Your task to perform on an android device: Open Amazon Image 0: 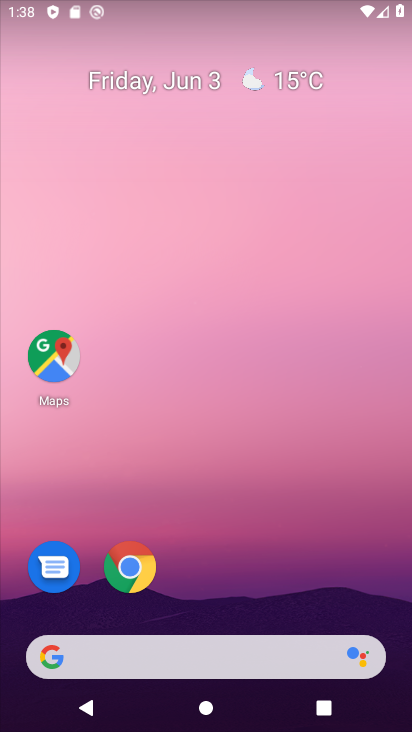
Step 0: click (117, 572)
Your task to perform on an android device: Open Amazon Image 1: 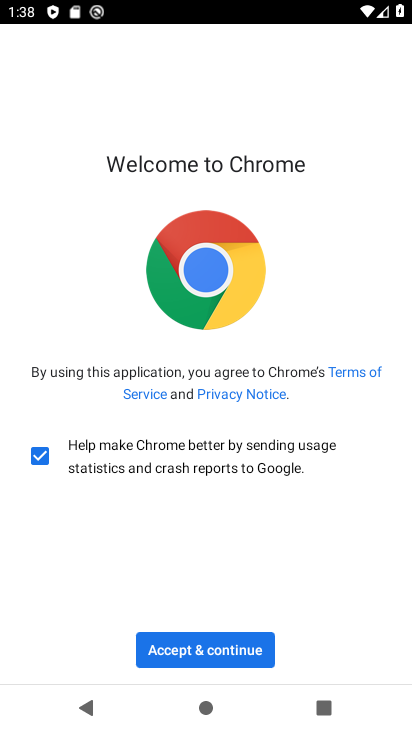
Step 1: click (198, 657)
Your task to perform on an android device: Open Amazon Image 2: 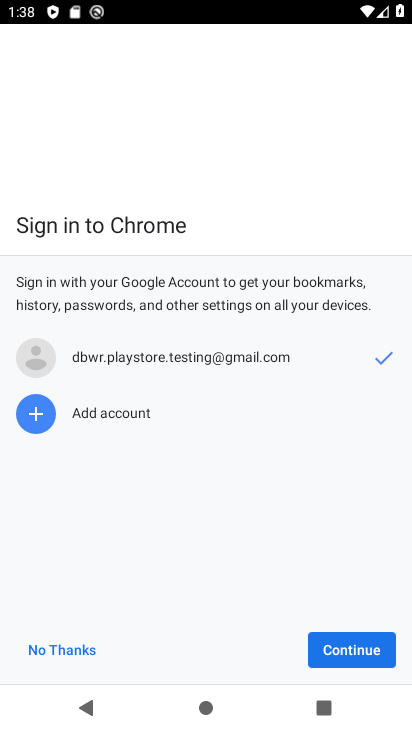
Step 2: click (356, 669)
Your task to perform on an android device: Open Amazon Image 3: 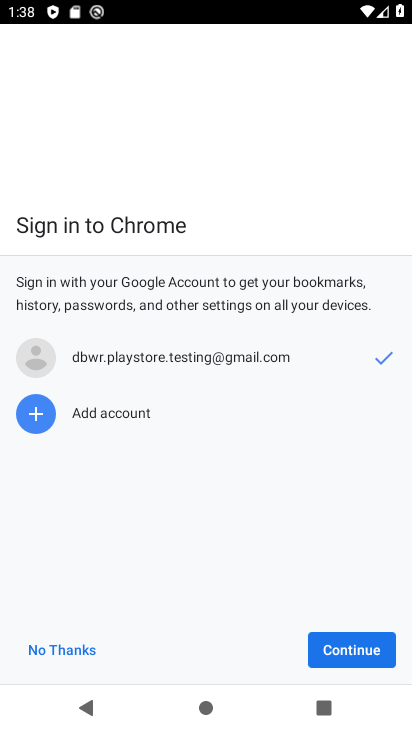
Step 3: click (356, 659)
Your task to perform on an android device: Open Amazon Image 4: 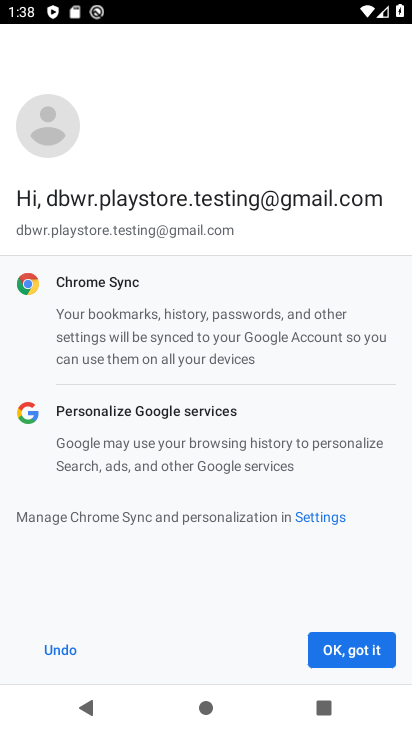
Step 4: click (355, 657)
Your task to perform on an android device: Open Amazon Image 5: 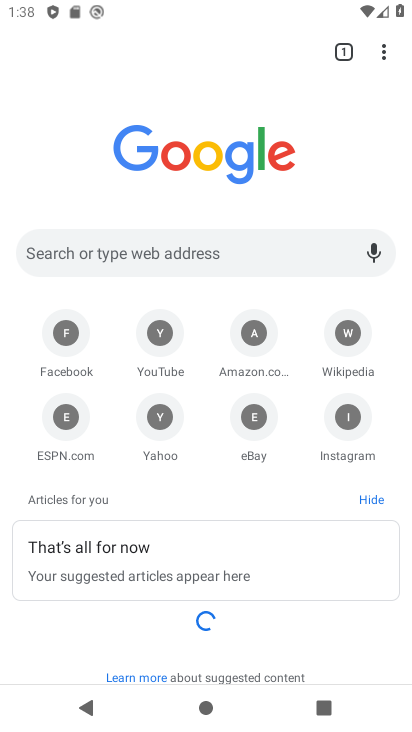
Step 5: click (262, 341)
Your task to perform on an android device: Open Amazon Image 6: 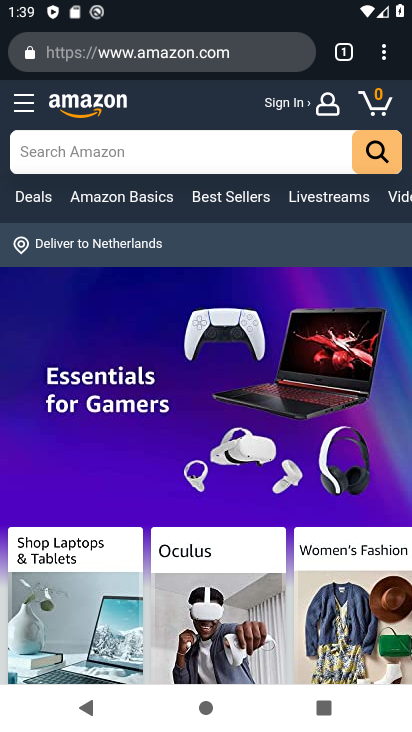
Step 6: task complete